Your task to perform on an android device: What's the weather going to be this weekend? Image 0: 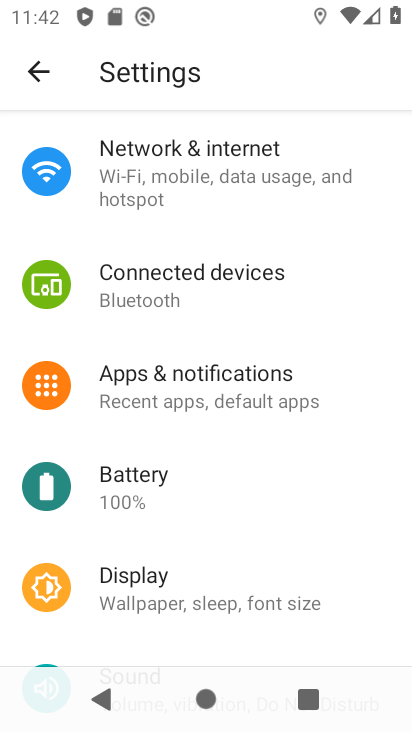
Step 0: press home button
Your task to perform on an android device: What's the weather going to be this weekend? Image 1: 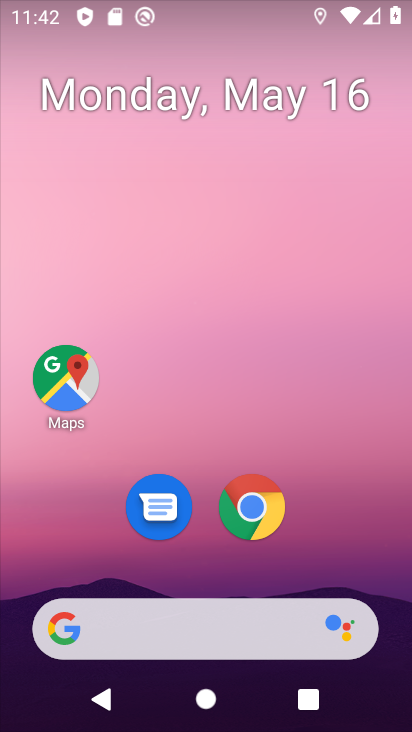
Step 1: drag from (244, 628) to (255, 223)
Your task to perform on an android device: What's the weather going to be this weekend? Image 2: 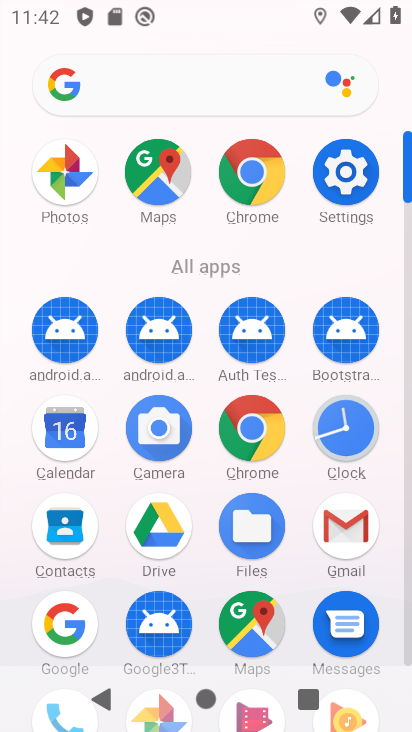
Step 2: click (58, 631)
Your task to perform on an android device: What's the weather going to be this weekend? Image 3: 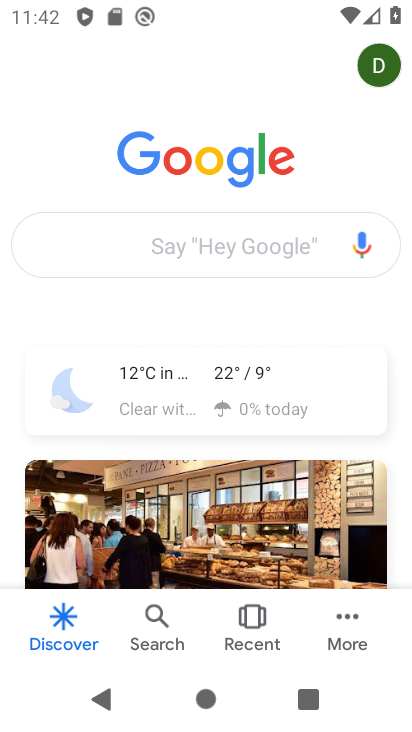
Step 3: click (202, 242)
Your task to perform on an android device: What's the weather going to be this weekend? Image 4: 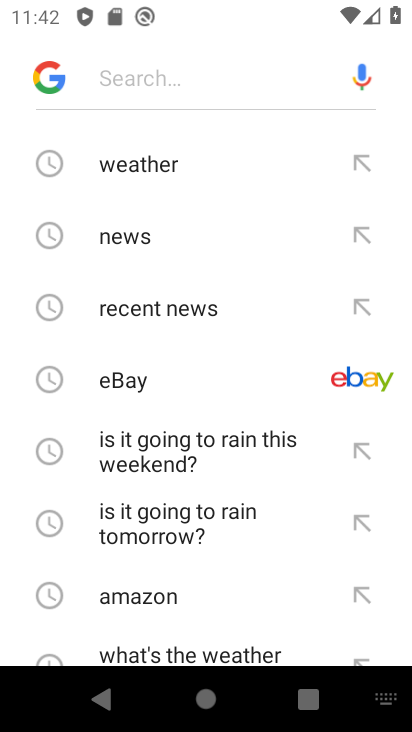
Step 4: click (360, 169)
Your task to perform on an android device: What's the weather going to be this weekend? Image 5: 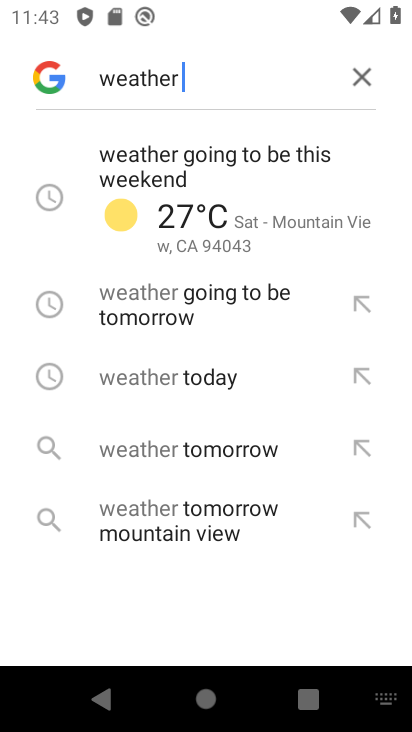
Step 5: click (325, 213)
Your task to perform on an android device: What's the weather going to be this weekend? Image 6: 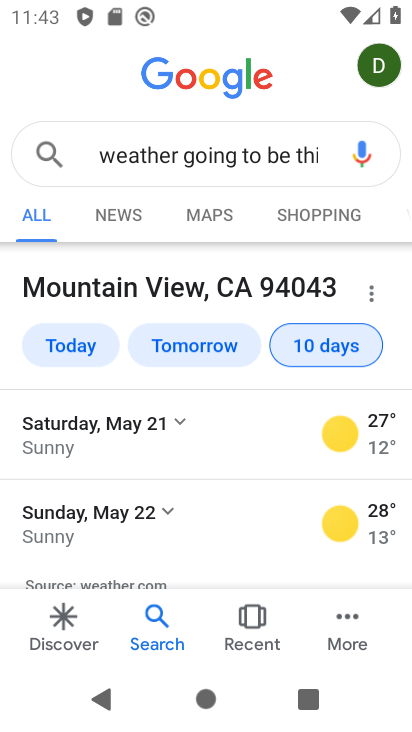
Step 6: click (315, 345)
Your task to perform on an android device: What's the weather going to be this weekend? Image 7: 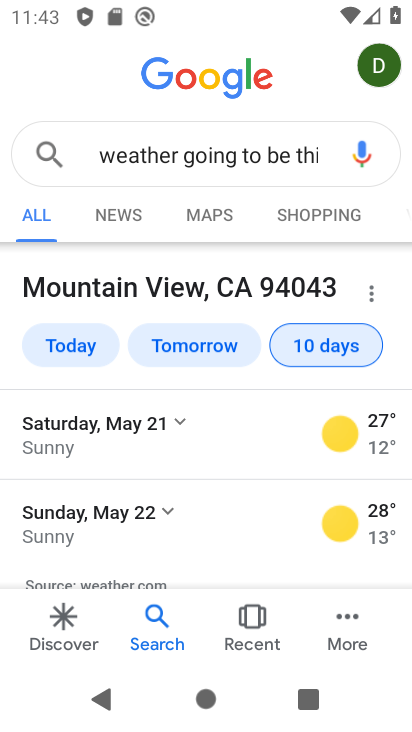
Step 7: task complete